Your task to perform on an android device: When is my next appointment? Image 0: 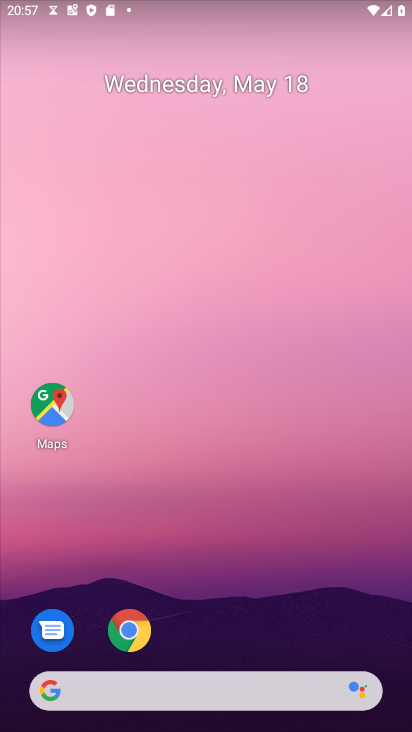
Step 0: press home button
Your task to perform on an android device: When is my next appointment? Image 1: 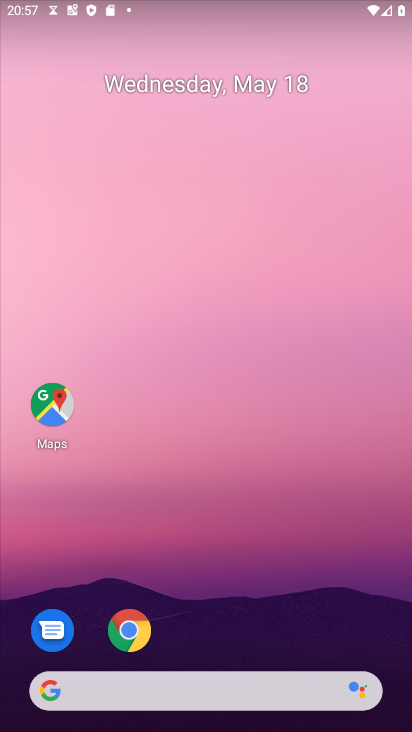
Step 1: drag from (129, 688) to (213, 210)
Your task to perform on an android device: When is my next appointment? Image 2: 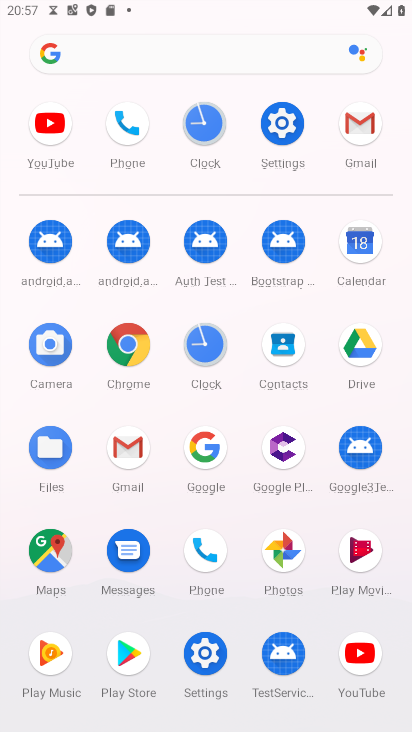
Step 2: click (361, 243)
Your task to perform on an android device: When is my next appointment? Image 3: 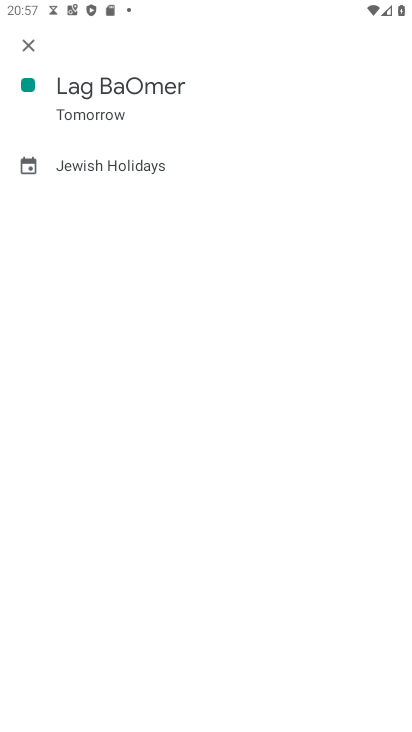
Step 3: click (30, 44)
Your task to perform on an android device: When is my next appointment? Image 4: 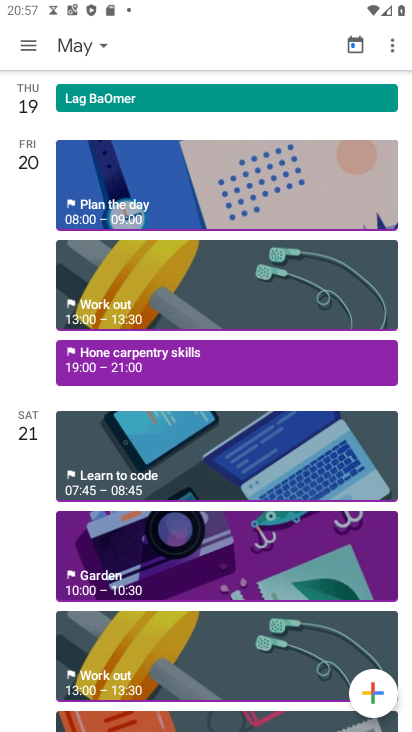
Step 4: click (76, 45)
Your task to perform on an android device: When is my next appointment? Image 5: 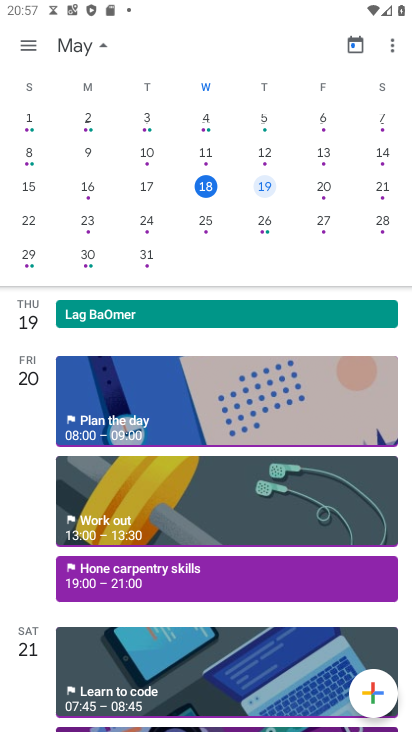
Step 5: click (205, 187)
Your task to perform on an android device: When is my next appointment? Image 6: 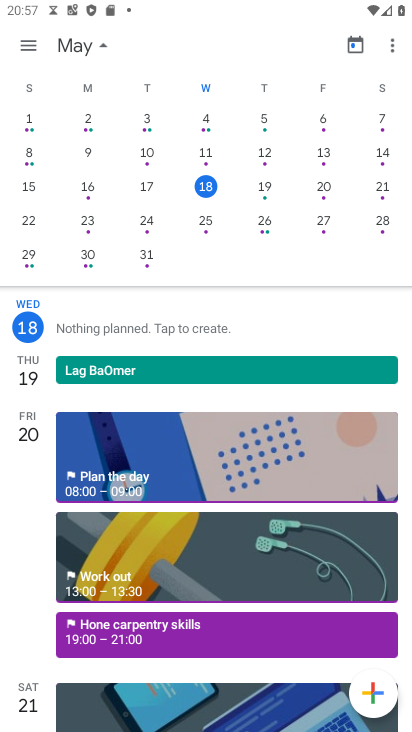
Step 6: click (30, 44)
Your task to perform on an android device: When is my next appointment? Image 7: 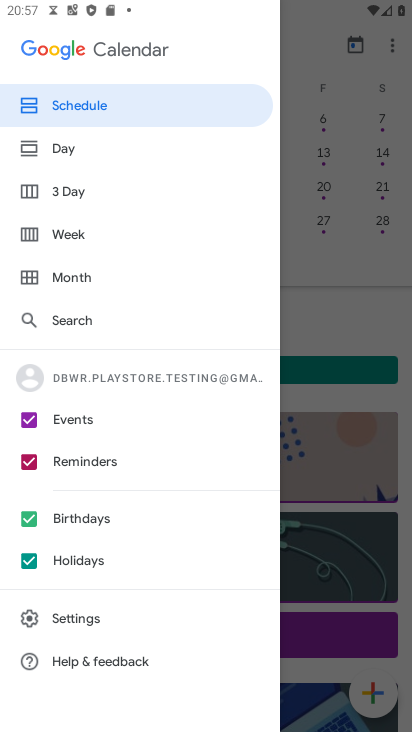
Step 7: click (72, 105)
Your task to perform on an android device: When is my next appointment? Image 8: 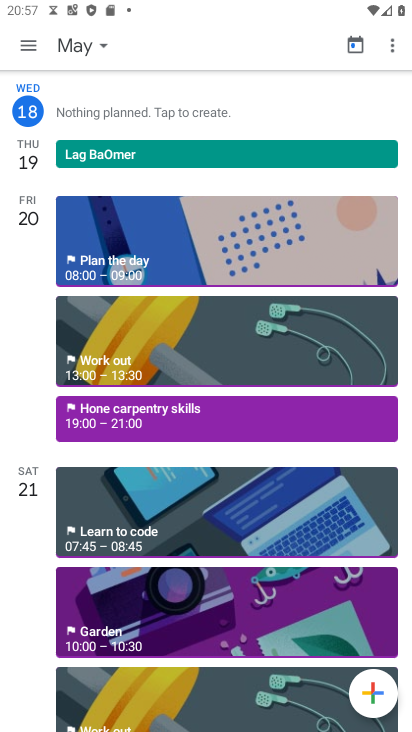
Step 8: click (82, 427)
Your task to perform on an android device: When is my next appointment? Image 9: 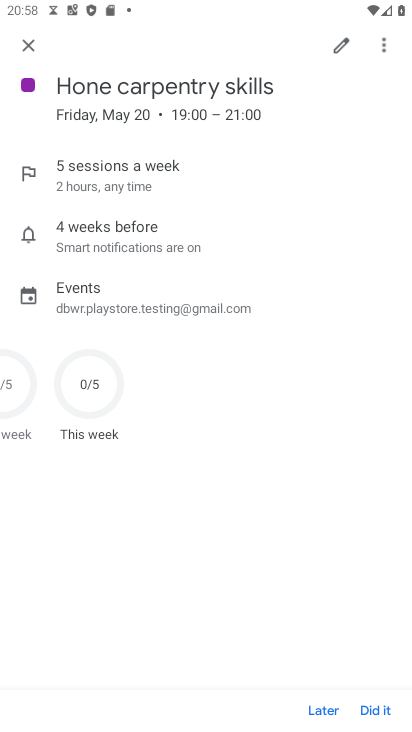
Step 9: task complete